Your task to perform on an android device: star an email in the gmail app Image 0: 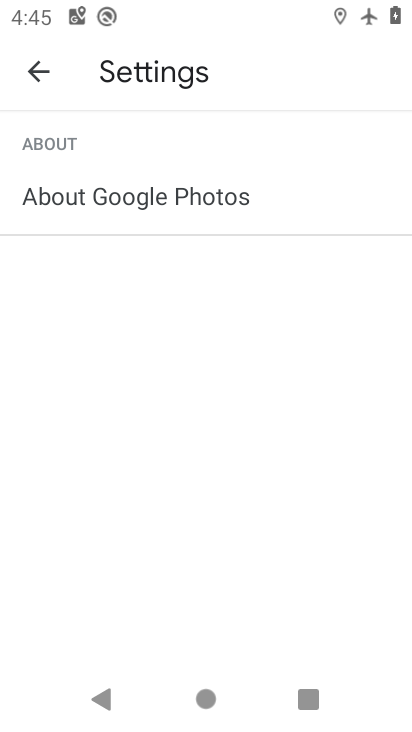
Step 0: press home button
Your task to perform on an android device: star an email in the gmail app Image 1: 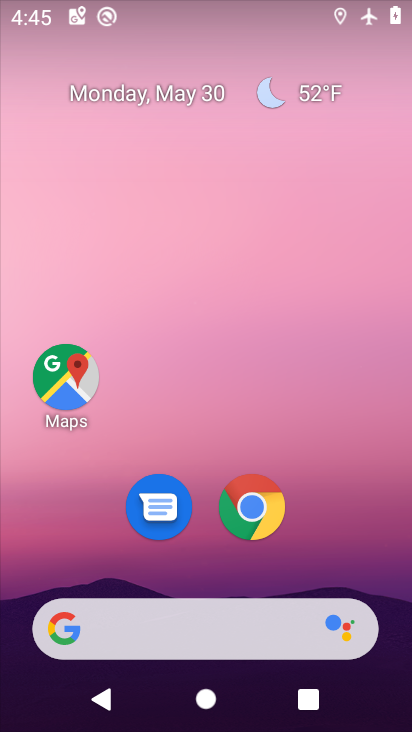
Step 1: drag from (359, 501) to (298, 70)
Your task to perform on an android device: star an email in the gmail app Image 2: 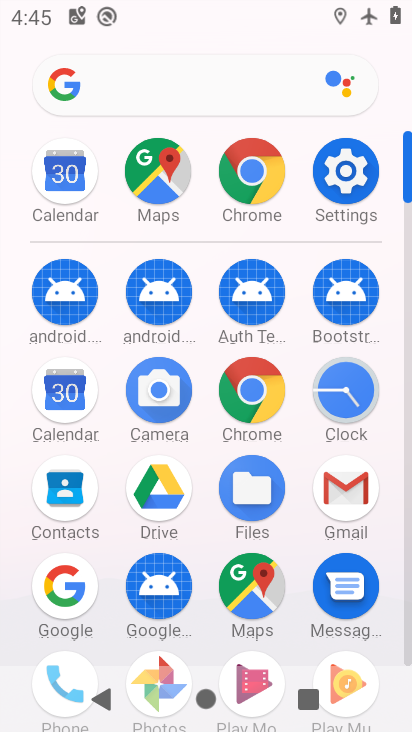
Step 2: click (362, 508)
Your task to perform on an android device: star an email in the gmail app Image 3: 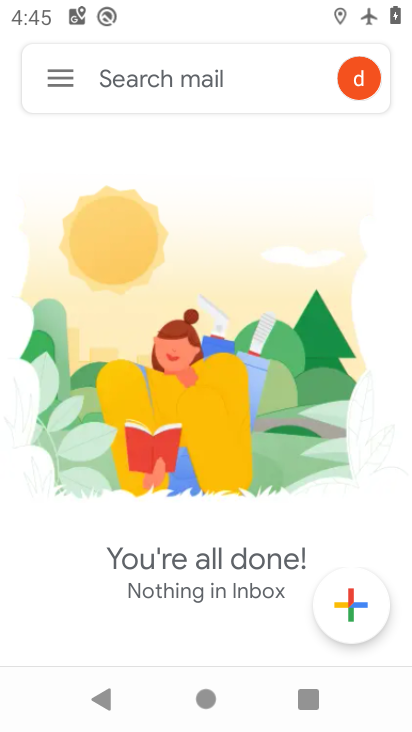
Step 3: click (51, 84)
Your task to perform on an android device: star an email in the gmail app Image 4: 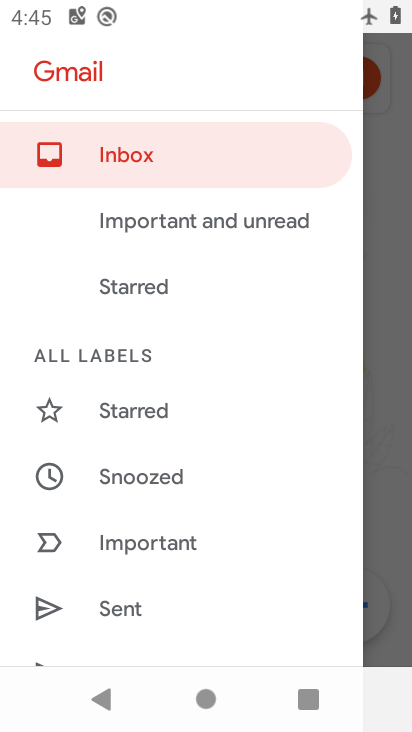
Step 4: task complete